Your task to perform on an android device: Go to Maps Image 0: 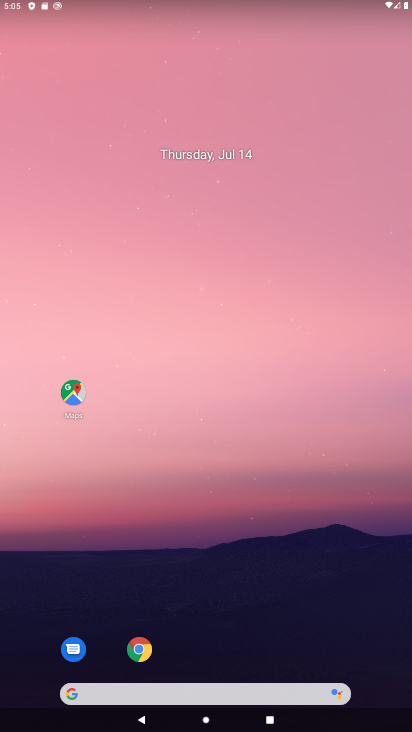
Step 0: click (70, 397)
Your task to perform on an android device: Go to Maps Image 1: 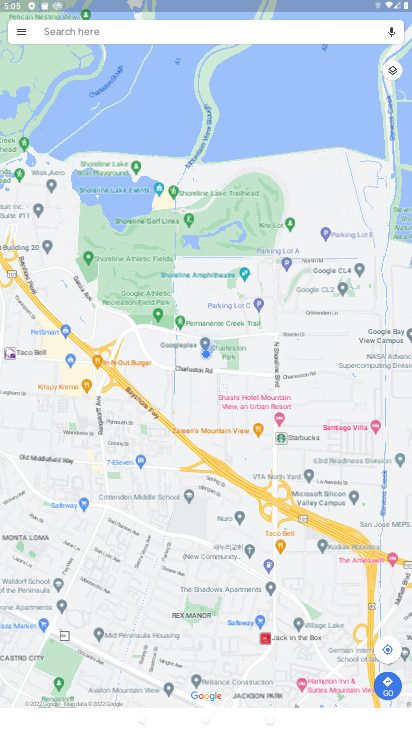
Step 1: task complete